Your task to perform on an android device: Go to calendar. Show me events next week Image 0: 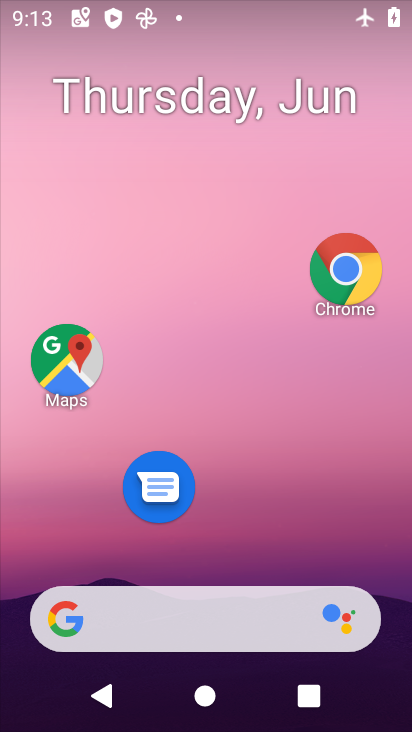
Step 0: drag from (218, 566) to (287, 108)
Your task to perform on an android device: Go to calendar. Show me events next week Image 1: 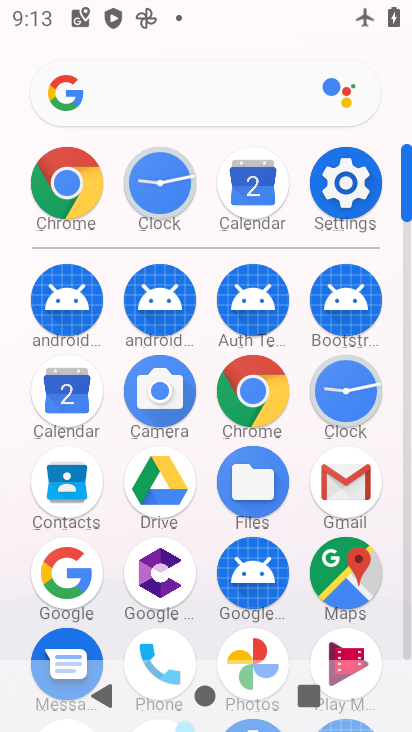
Step 1: click (59, 413)
Your task to perform on an android device: Go to calendar. Show me events next week Image 2: 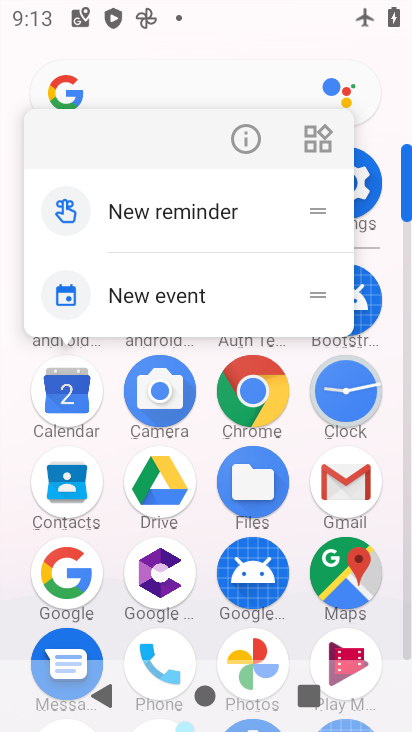
Step 2: click (244, 141)
Your task to perform on an android device: Go to calendar. Show me events next week Image 3: 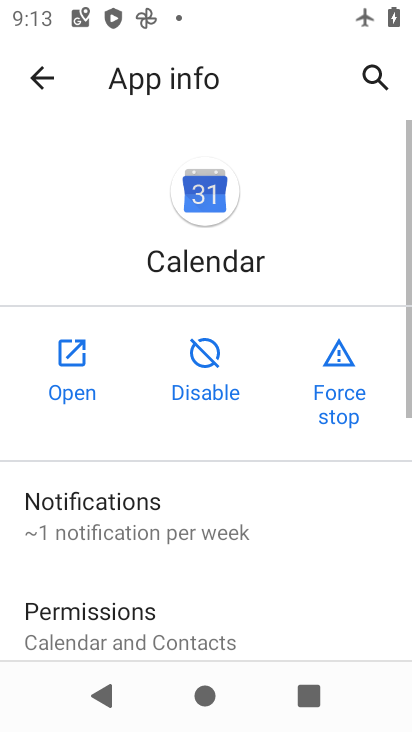
Step 3: click (90, 383)
Your task to perform on an android device: Go to calendar. Show me events next week Image 4: 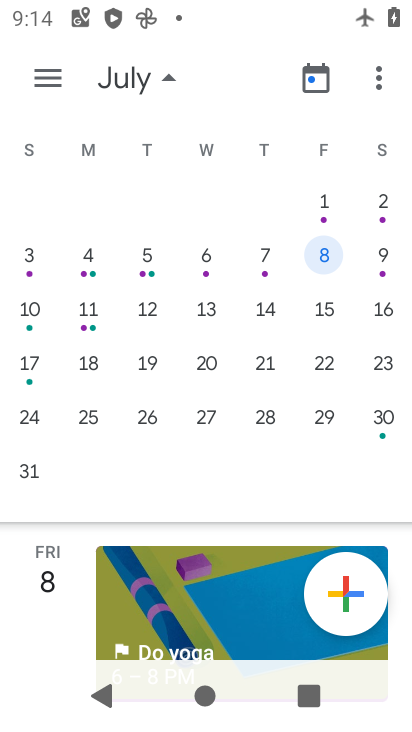
Step 4: drag from (95, 314) to (411, 273)
Your task to perform on an android device: Go to calendar. Show me events next week Image 5: 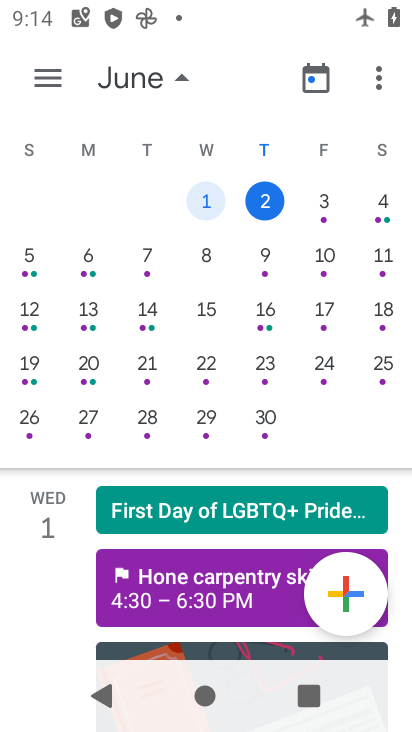
Step 5: click (269, 270)
Your task to perform on an android device: Go to calendar. Show me events next week Image 6: 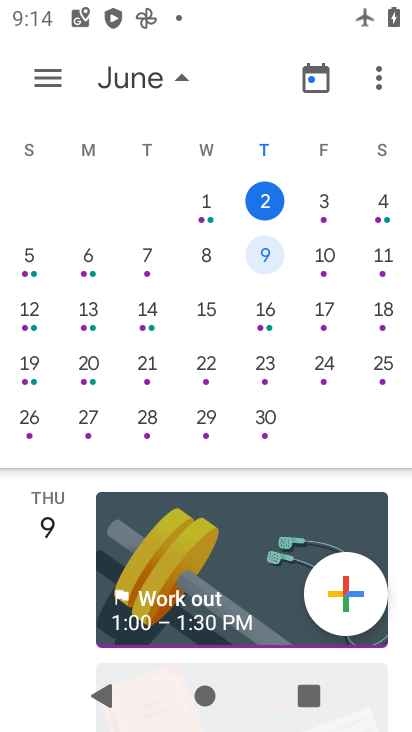
Step 6: task complete